Your task to perform on an android device: allow cookies in the chrome app Image 0: 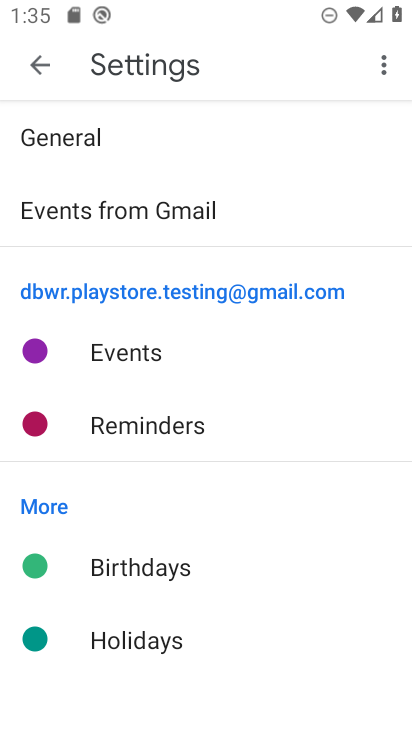
Step 0: press home button
Your task to perform on an android device: allow cookies in the chrome app Image 1: 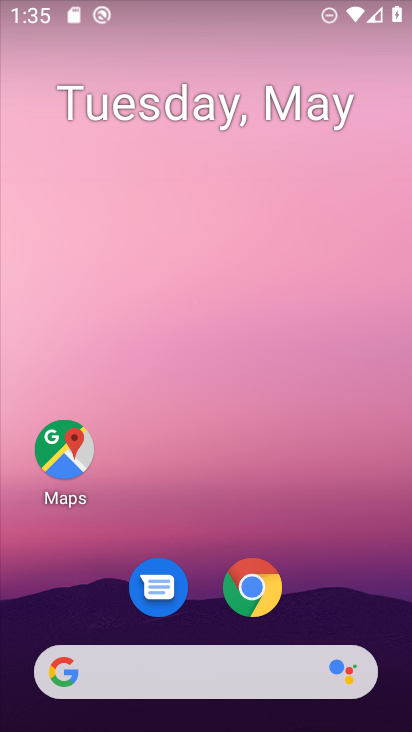
Step 1: click (239, 587)
Your task to perform on an android device: allow cookies in the chrome app Image 2: 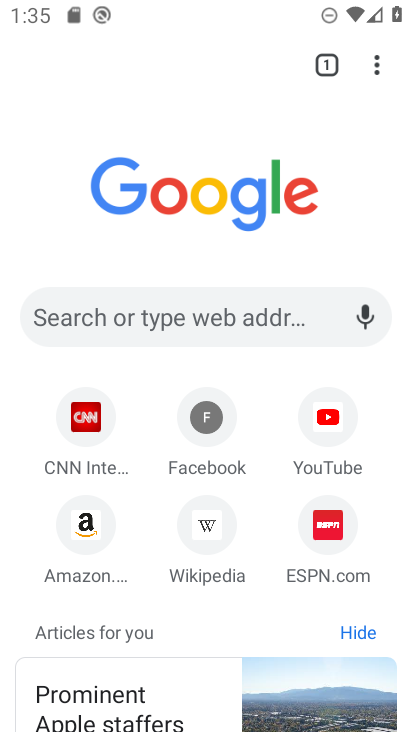
Step 2: click (369, 48)
Your task to perform on an android device: allow cookies in the chrome app Image 3: 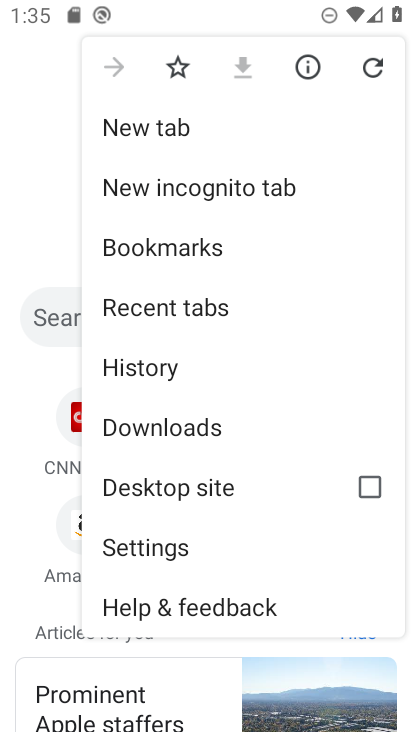
Step 3: click (160, 529)
Your task to perform on an android device: allow cookies in the chrome app Image 4: 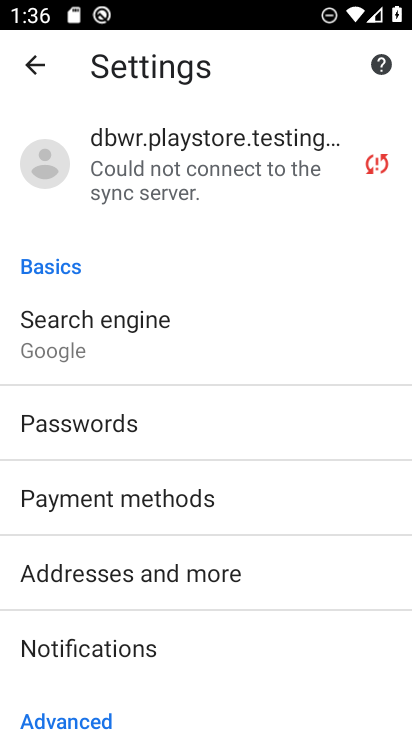
Step 4: drag from (122, 640) to (166, 88)
Your task to perform on an android device: allow cookies in the chrome app Image 5: 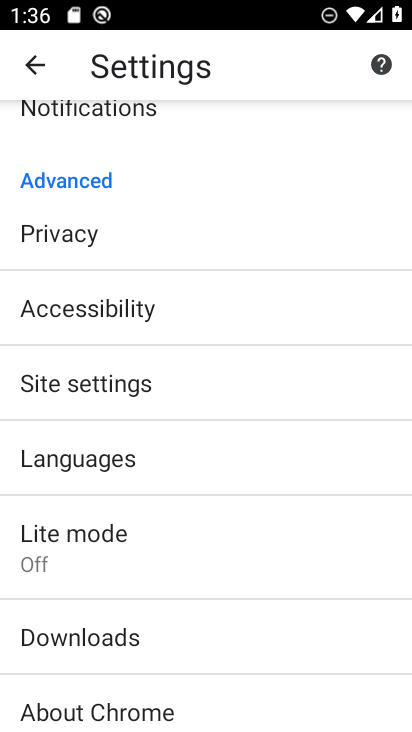
Step 5: click (42, 372)
Your task to perform on an android device: allow cookies in the chrome app Image 6: 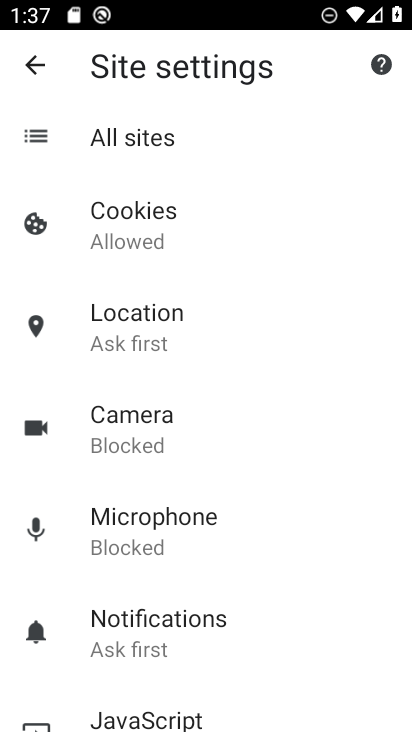
Step 6: drag from (181, 663) to (259, 42)
Your task to perform on an android device: allow cookies in the chrome app Image 7: 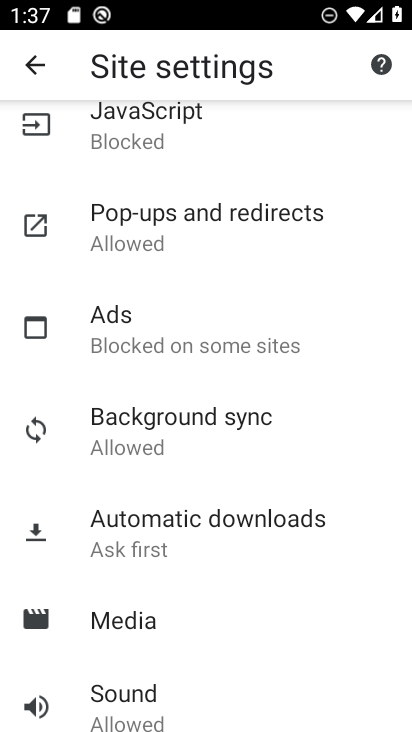
Step 7: drag from (150, 634) to (234, 87)
Your task to perform on an android device: allow cookies in the chrome app Image 8: 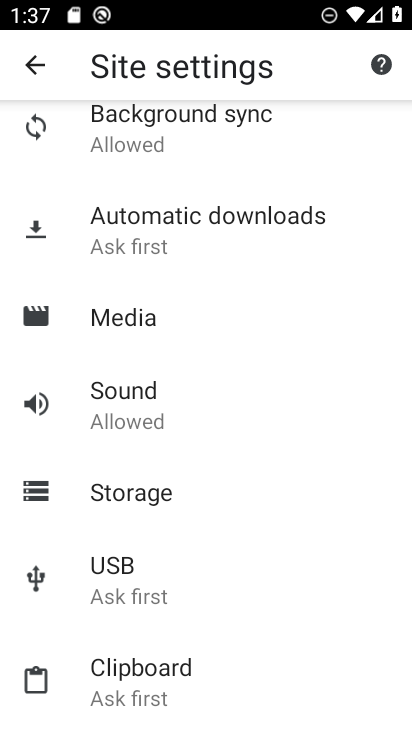
Step 8: drag from (175, 614) to (305, 16)
Your task to perform on an android device: allow cookies in the chrome app Image 9: 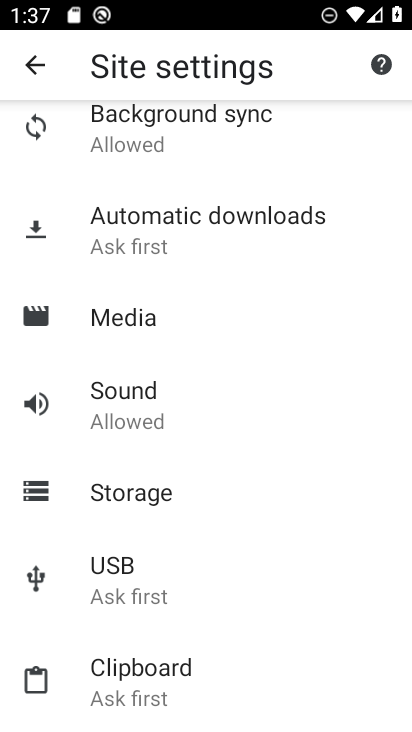
Step 9: drag from (223, 615) to (290, 59)
Your task to perform on an android device: allow cookies in the chrome app Image 10: 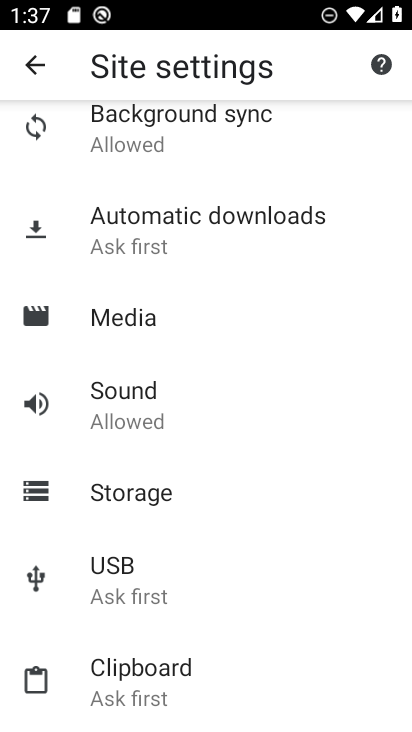
Step 10: drag from (238, 304) to (184, 693)
Your task to perform on an android device: allow cookies in the chrome app Image 11: 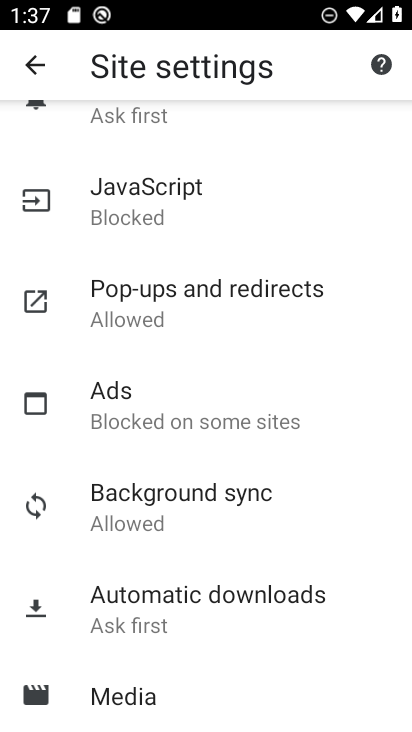
Step 11: drag from (238, 229) to (208, 563)
Your task to perform on an android device: allow cookies in the chrome app Image 12: 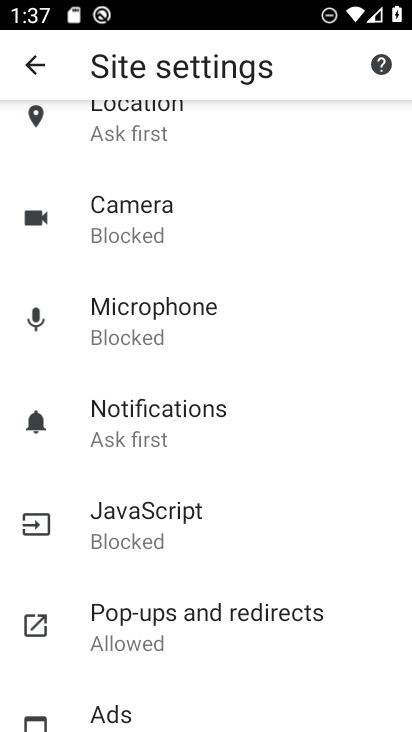
Step 12: drag from (265, 213) to (200, 569)
Your task to perform on an android device: allow cookies in the chrome app Image 13: 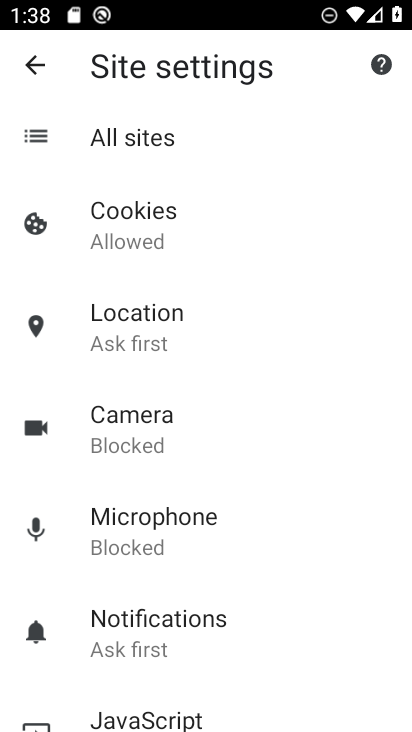
Step 13: click (181, 237)
Your task to perform on an android device: allow cookies in the chrome app Image 14: 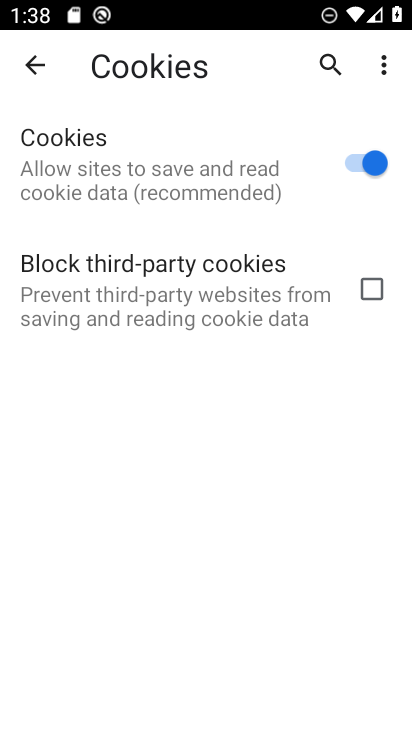
Step 14: task complete